Your task to perform on an android device: Do I have any events tomorrow? Image 0: 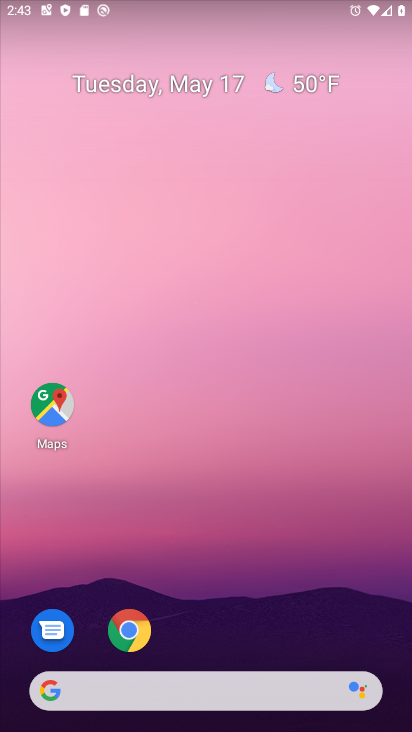
Step 0: drag from (144, 627) to (217, 413)
Your task to perform on an android device: Do I have any events tomorrow? Image 1: 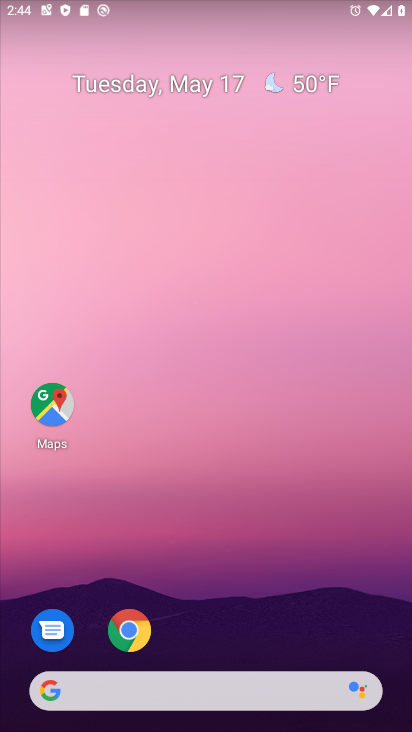
Step 1: drag from (206, 587) to (261, 317)
Your task to perform on an android device: Do I have any events tomorrow? Image 2: 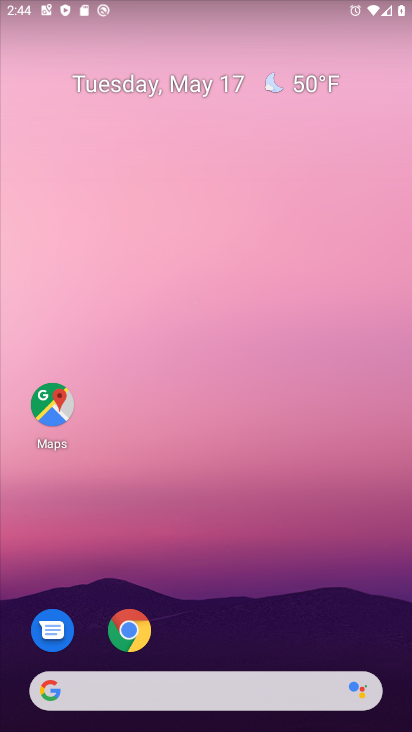
Step 2: drag from (295, 665) to (340, 285)
Your task to perform on an android device: Do I have any events tomorrow? Image 3: 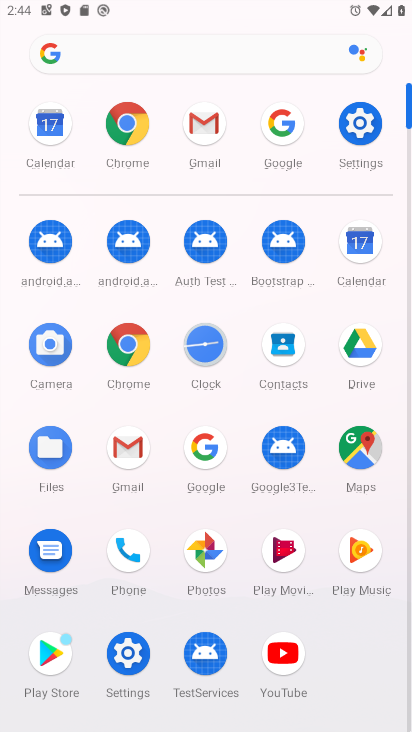
Step 3: click (354, 265)
Your task to perform on an android device: Do I have any events tomorrow? Image 4: 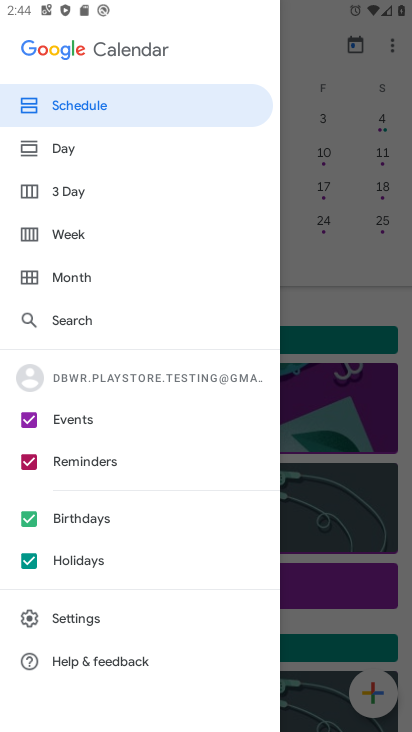
Step 4: click (327, 279)
Your task to perform on an android device: Do I have any events tomorrow? Image 5: 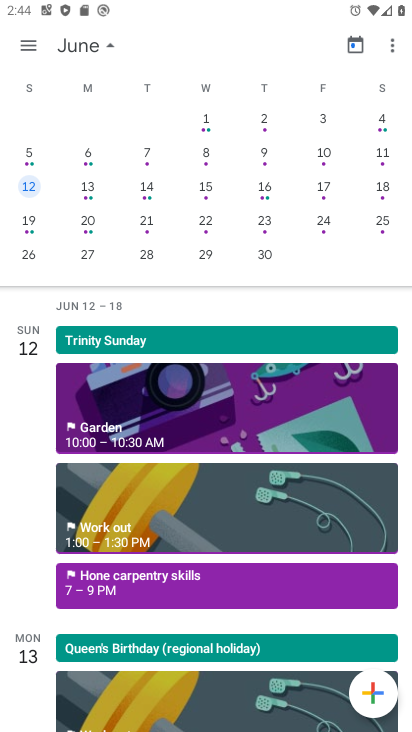
Step 5: click (96, 43)
Your task to perform on an android device: Do I have any events tomorrow? Image 6: 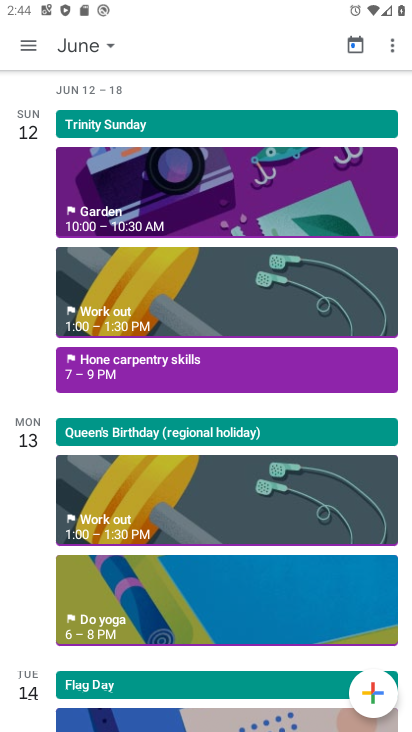
Step 6: click (74, 47)
Your task to perform on an android device: Do I have any events tomorrow? Image 7: 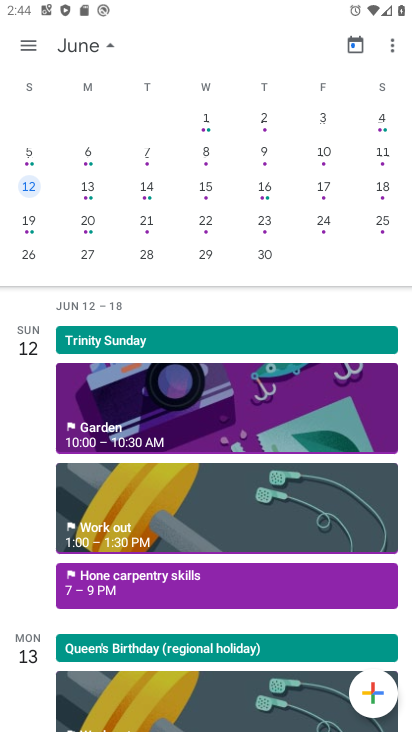
Step 7: drag from (12, 201) to (385, 258)
Your task to perform on an android device: Do I have any events tomorrow? Image 8: 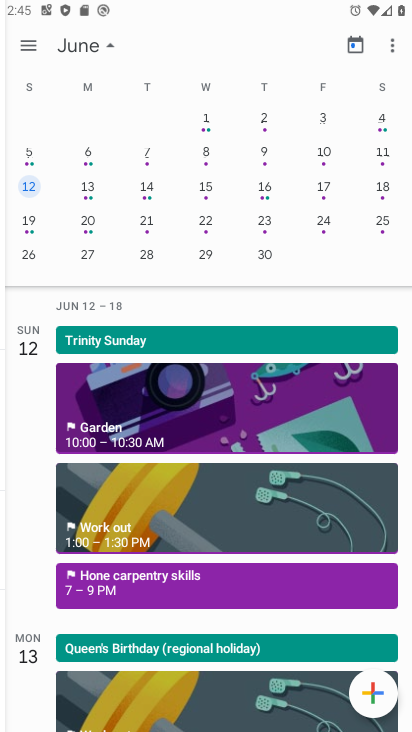
Step 8: drag from (164, 207) to (411, 200)
Your task to perform on an android device: Do I have any events tomorrow? Image 9: 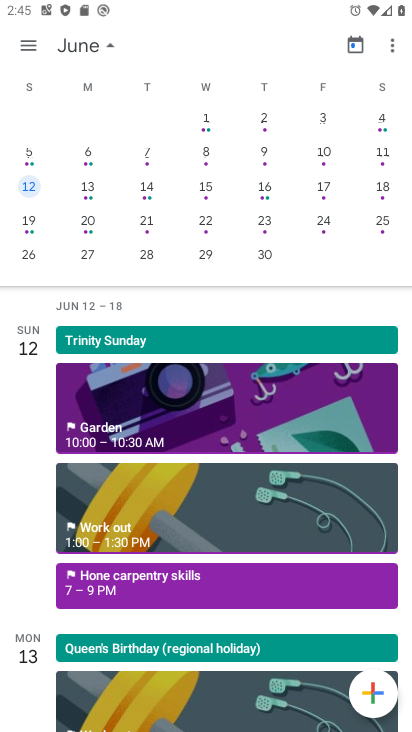
Step 9: drag from (88, 201) to (380, 225)
Your task to perform on an android device: Do I have any events tomorrow? Image 10: 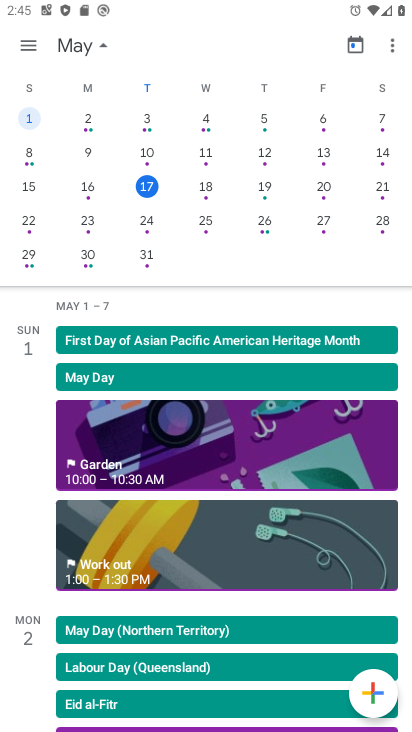
Step 10: click (202, 192)
Your task to perform on an android device: Do I have any events tomorrow? Image 11: 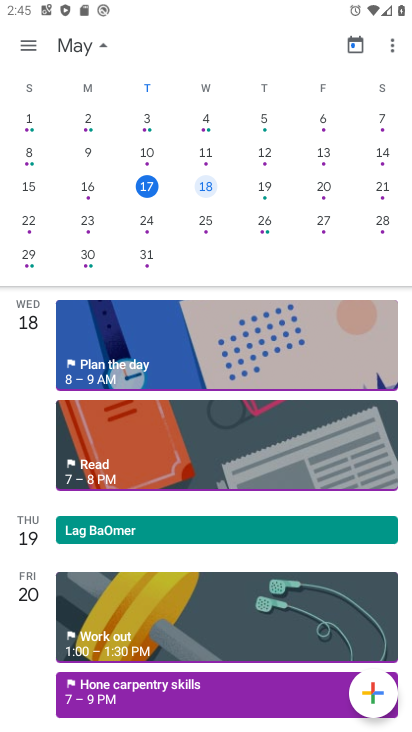
Step 11: click (138, 361)
Your task to perform on an android device: Do I have any events tomorrow? Image 12: 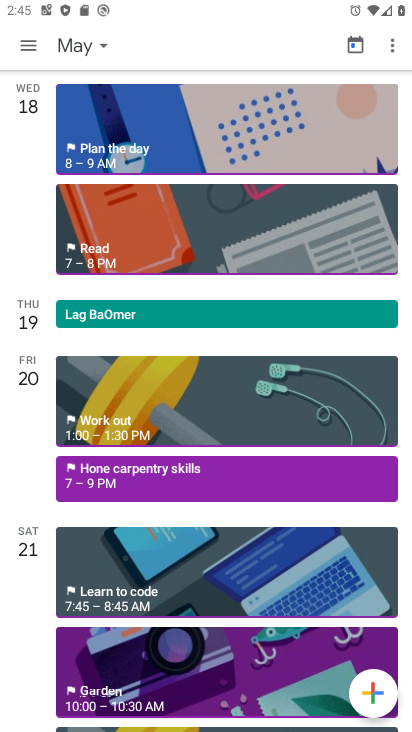
Step 12: click (112, 154)
Your task to perform on an android device: Do I have any events tomorrow? Image 13: 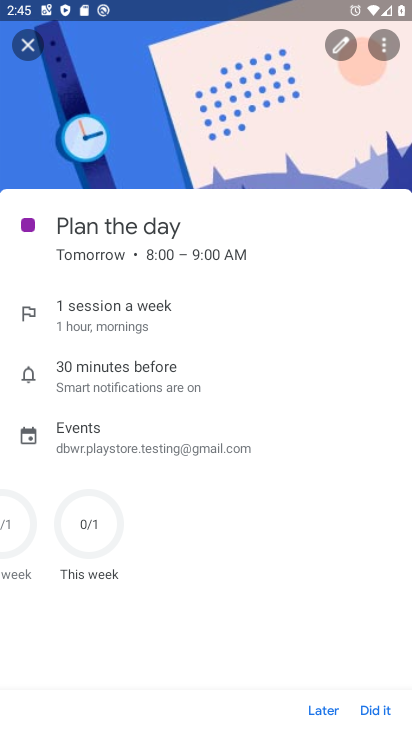
Step 13: task complete